Your task to perform on an android device: turn notification dots off Image 0: 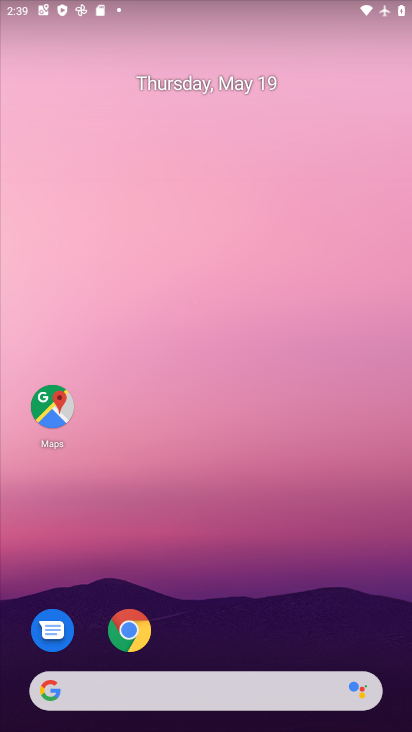
Step 0: drag from (387, 636) to (321, 117)
Your task to perform on an android device: turn notification dots off Image 1: 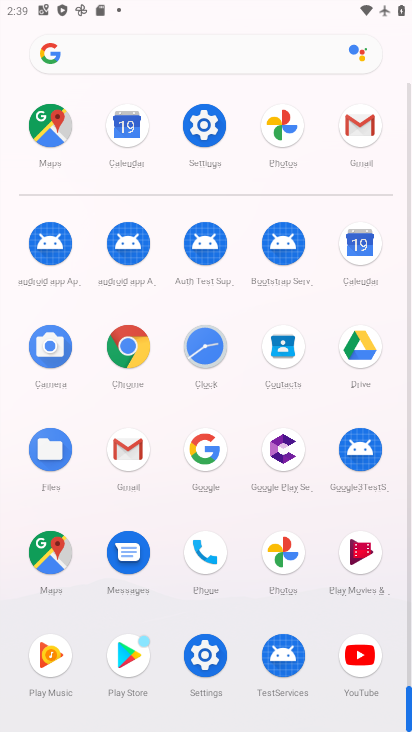
Step 1: click (206, 654)
Your task to perform on an android device: turn notification dots off Image 2: 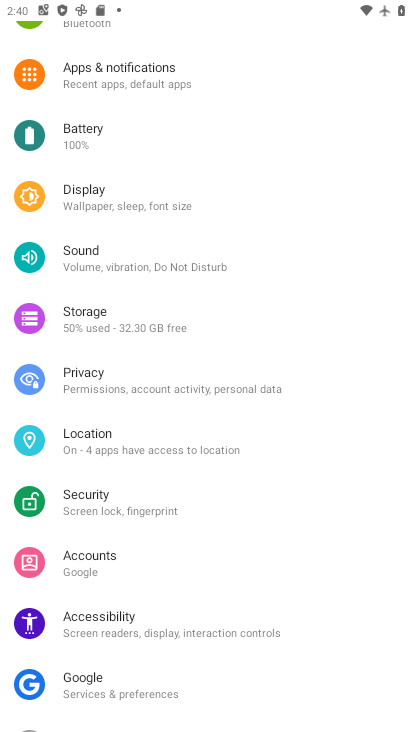
Step 2: click (97, 77)
Your task to perform on an android device: turn notification dots off Image 3: 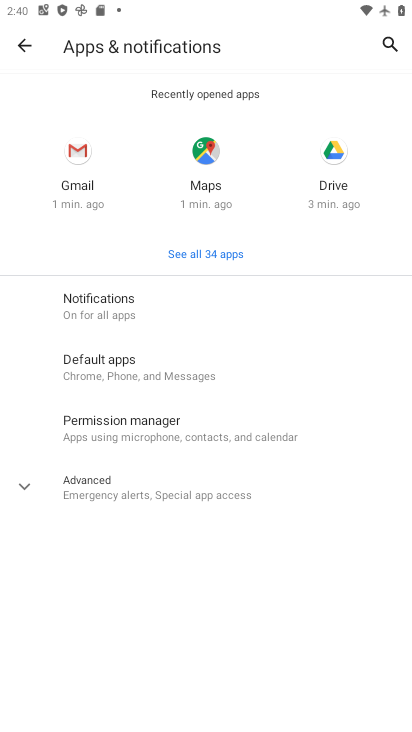
Step 3: click (104, 298)
Your task to perform on an android device: turn notification dots off Image 4: 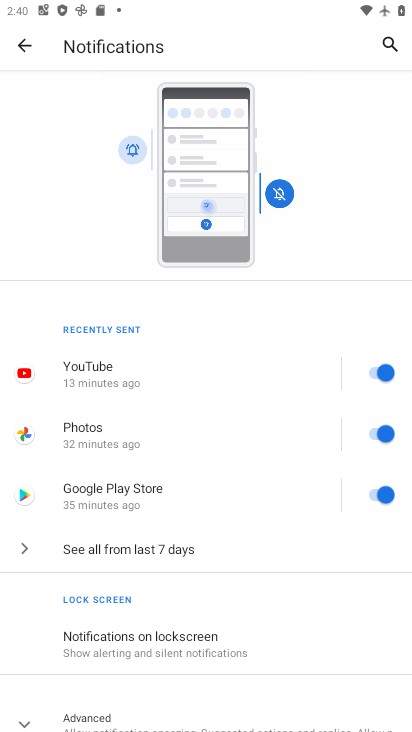
Step 4: drag from (313, 682) to (273, 282)
Your task to perform on an android device: turn notification dots off Image 5: 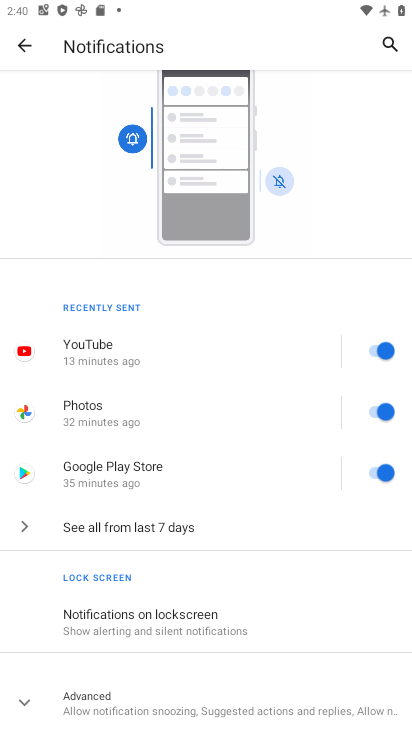
Step 5: click (23, 706)
Your task to perform on an android device: turn notification dots off Image 6: 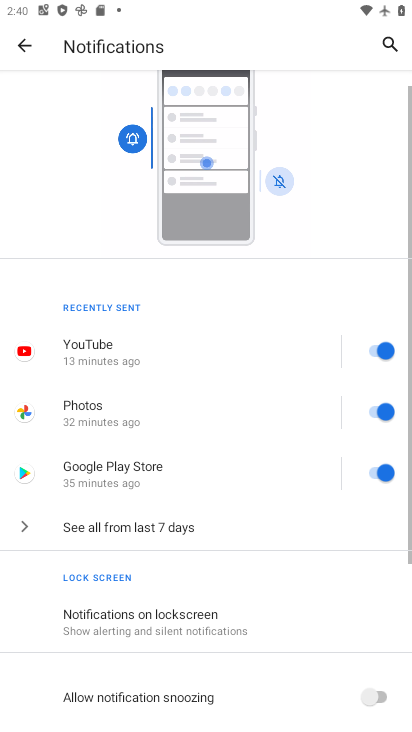
Step 6: drag from (359, 667) to (287, 220)
Your task to perform on an android device: turn notification dots off Image 7: 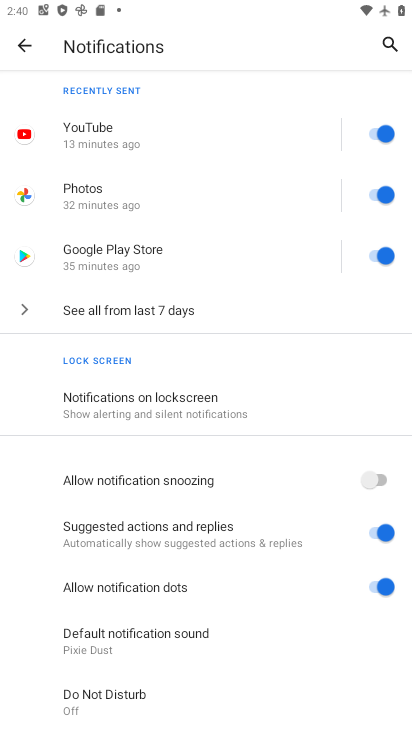
Step 7: click (372, 586)
Your task to perform on an android device: turn notification dots off Image 8: 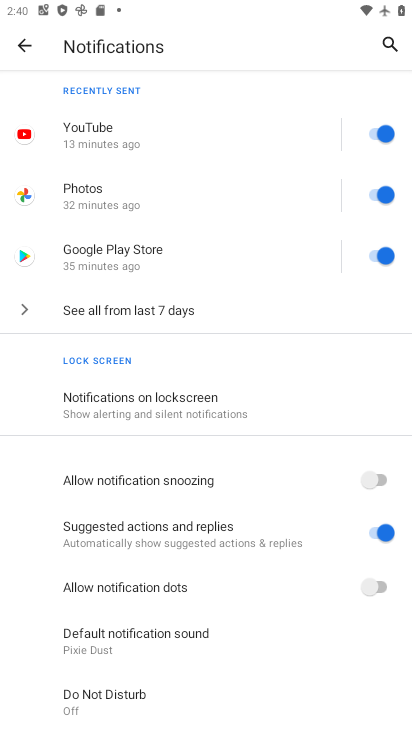
Step 8: task complete